Your task to perform on an android device: Go to Maps Image 0: 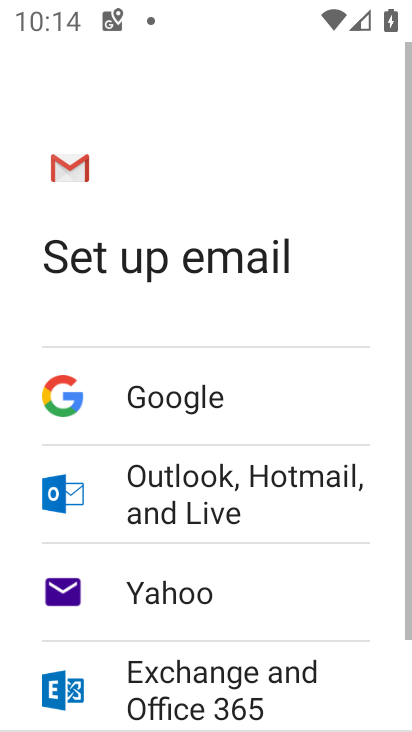
Step 0: press home button
Your task to perform on an android device: Go to Maps Image 1: 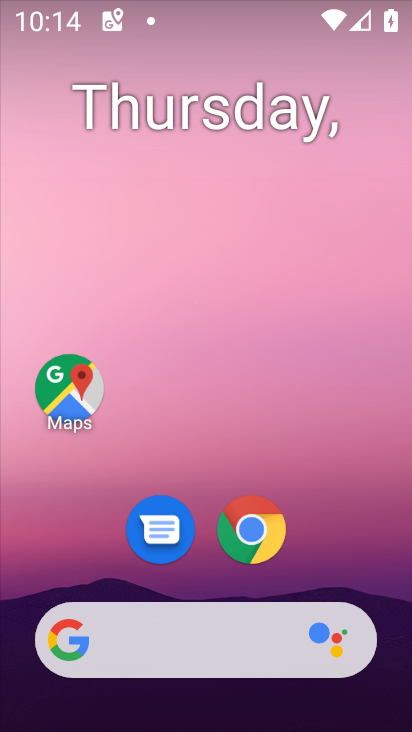
Step 1: click (102, 404)
Your task to perform on an android device: Go to Maps Image 2: 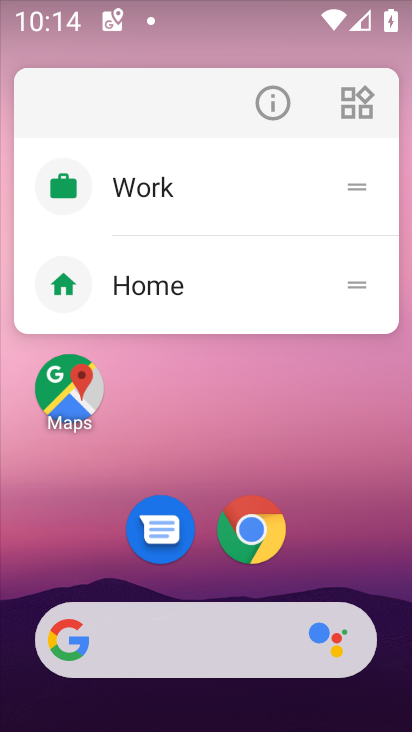
Step 2: click (59, 373)
Your task to perform on an android device: Go to Maps Image 3: 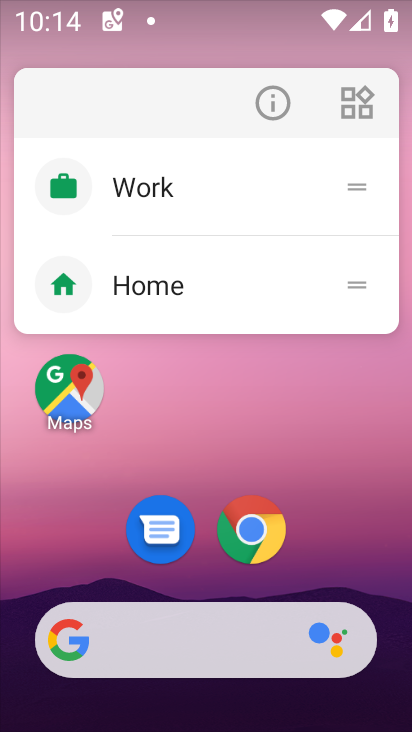
Step 3: click (59, 373)
Your task to perform on an android device: Go to Maps Image 4: 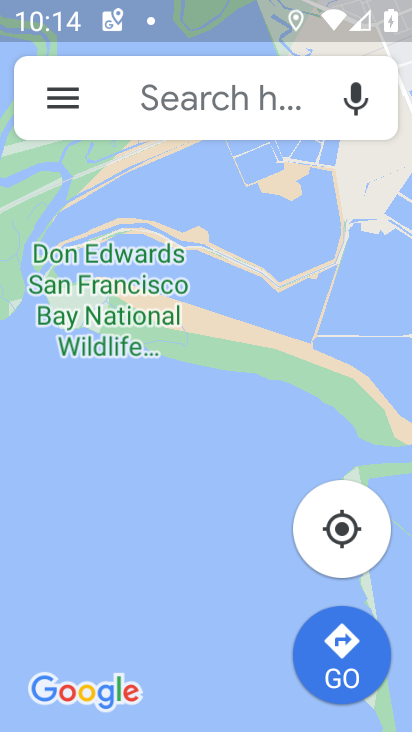
Step 4: task complete